Your task to perform on an android device: toggle pop-ups in chrome Image 0: 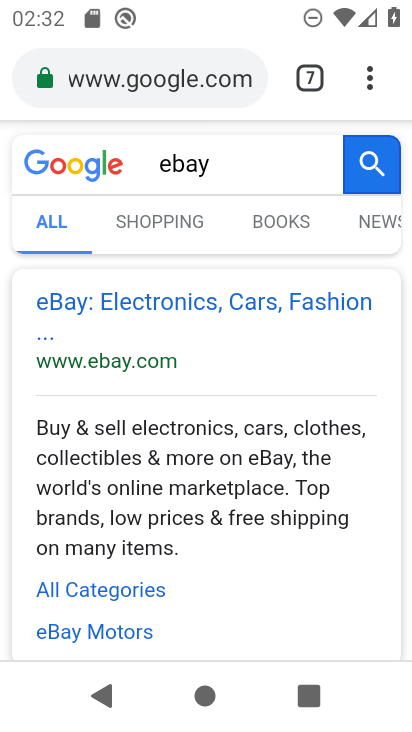
Step 0: click (375, 75)
Your task to perform on an android device: toggle pop-ups in chrome Image 1: 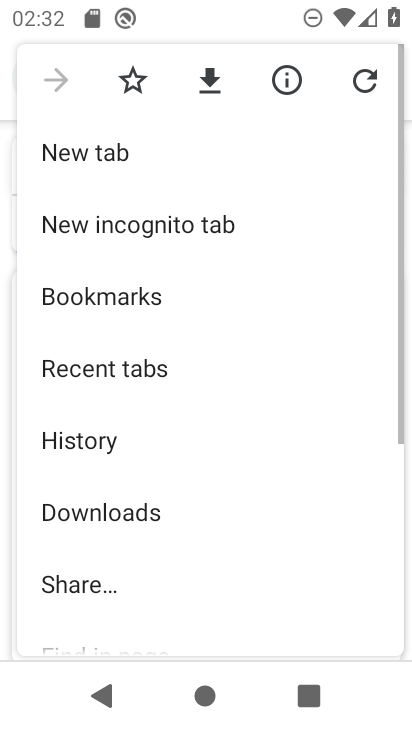
Step 1: drag from (209, 566) to (214, 149)
Your task to perform on an android device: toggle pop-ups in chrome Image 2: 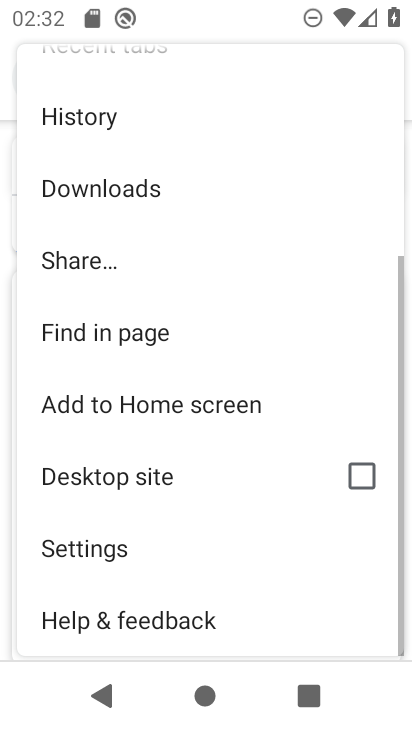
Step 2: click (150, 555)
Your task to perform on an android device: toggle pop-ups in chrome Image 3: 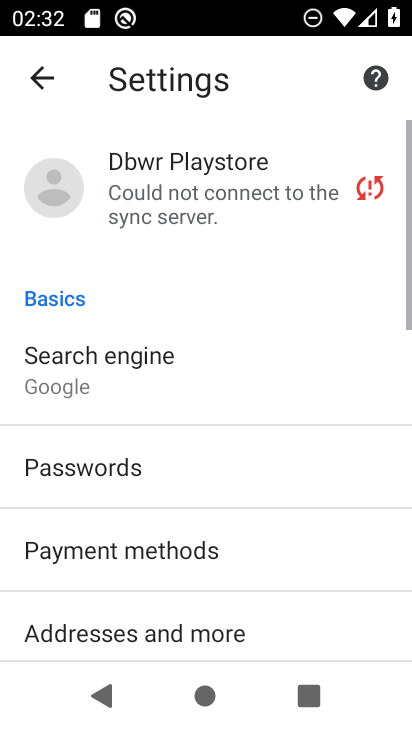
Step 3: drag from (150, 555) to (154, 172)
Your task to perform on an android device: toggle pop-ups in chrome Image 4: 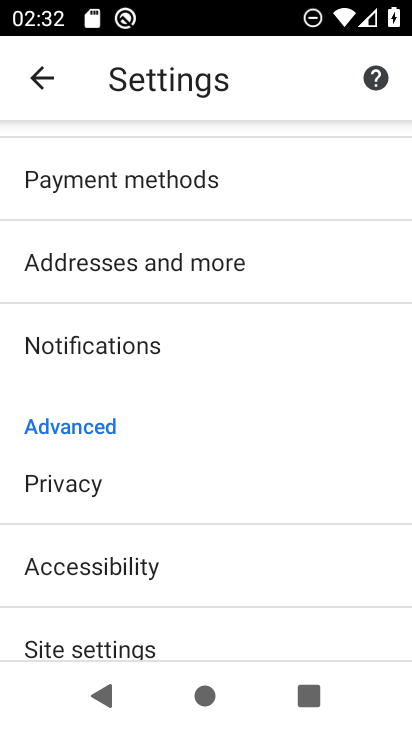
Step 4: drag from (167, 534) to (178, 221)
Your task to perform on an android device: toggle pop-ups in chrome Image 5: 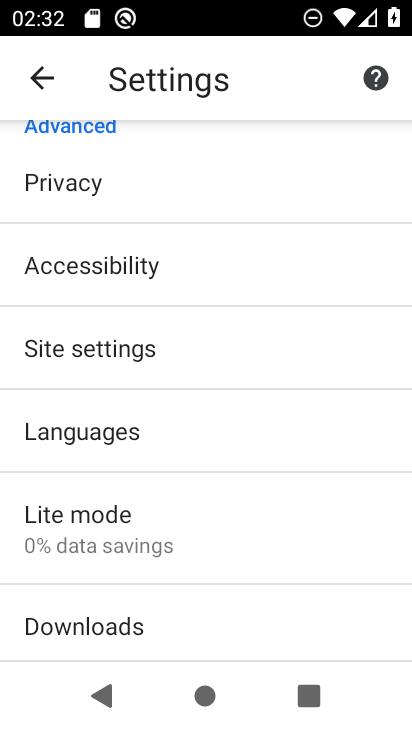
Step 5: click (151, 344)
Your task to perform on an android device: toggle pop-ups in chrome Image 6: 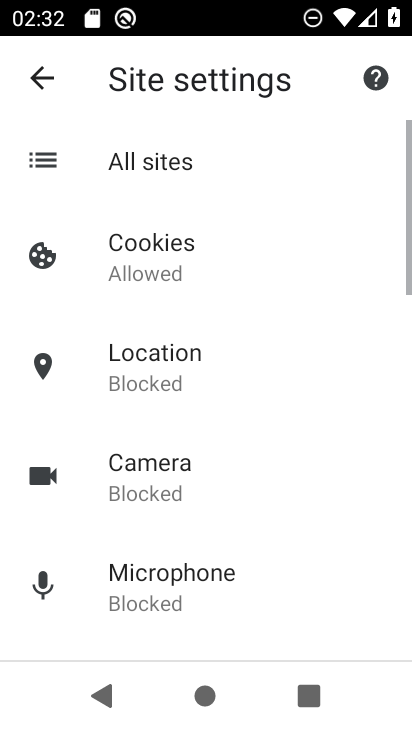
Step 6: drag from (223, 537) to (237, 207)
Your task to perform on an android device: toggle pop-ups in chrome Image 7: 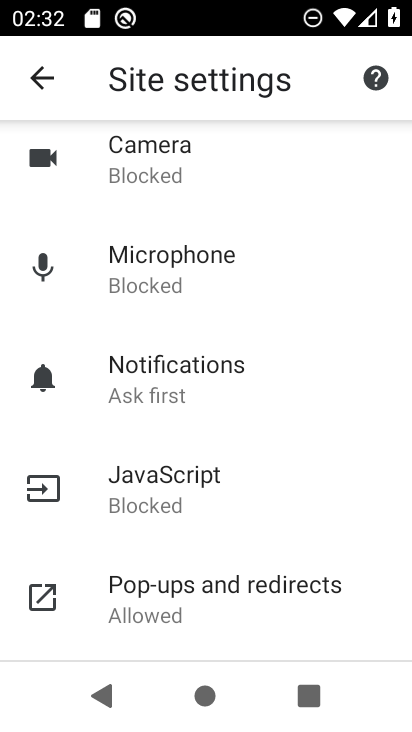
Step 7: click (255, 583)
Your task to perform on an android device: toggle pop-ups in chrome Image 8: 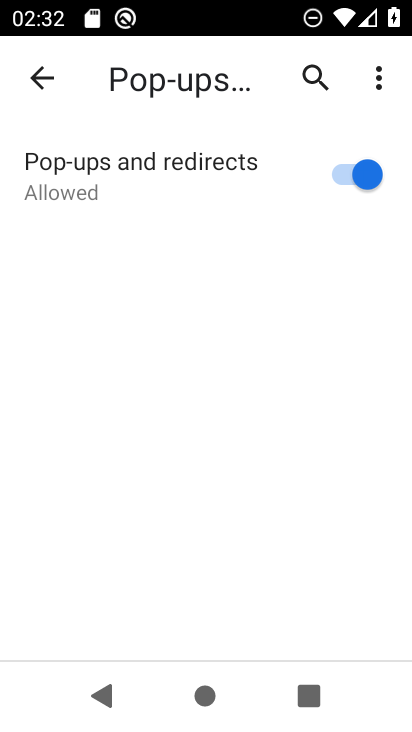
Step 8: click (356, 179)
Your task to perform on an android device: toggle pop-ups in chrome Image 9: 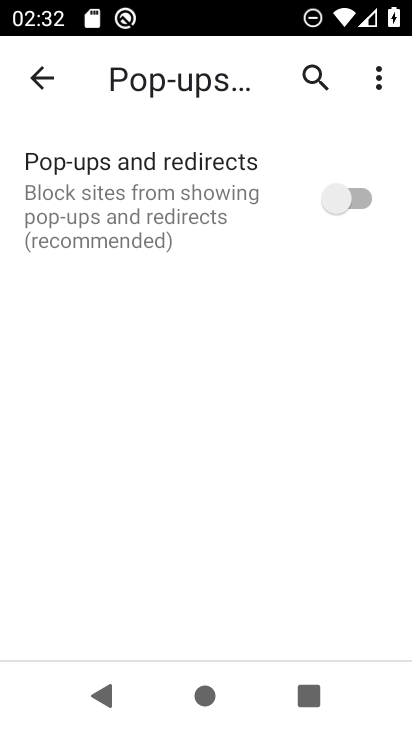
Step 9: task complete